Your task to perform on an android device: What is the speed of a plane? Image 0: 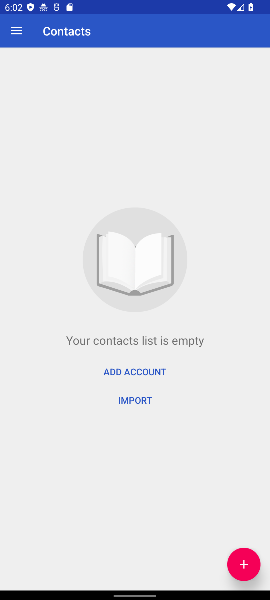
Step 0: press home button
Your task to perform on an android device: What is the speed of a plane? Image 1: 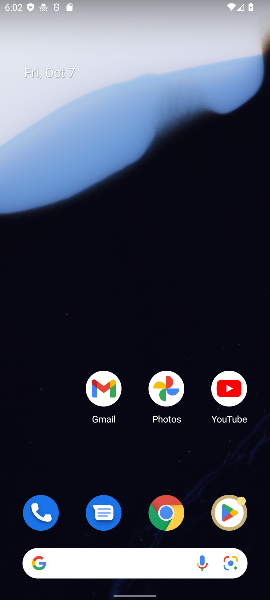
Step 1: click (95, 559)
Your task to perform on an android device: What is the speed of a plane? Image 2: 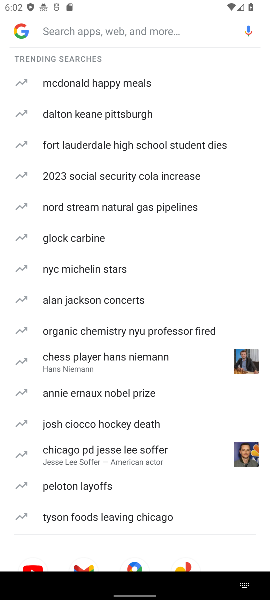
Step 2: type "What is the speed of a plane?"
Your task to perform on an android device: What is the speed of a plane? Image 3: 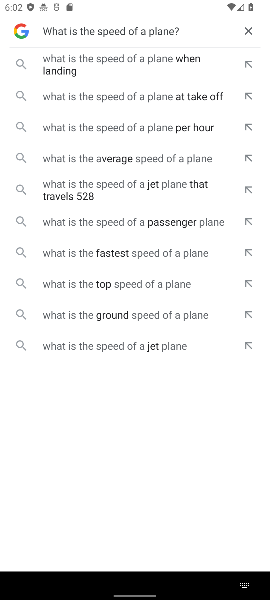
Step 3: click (88, 127)
Your task to perform on an android device: What is the speed of a plane? Image 4: 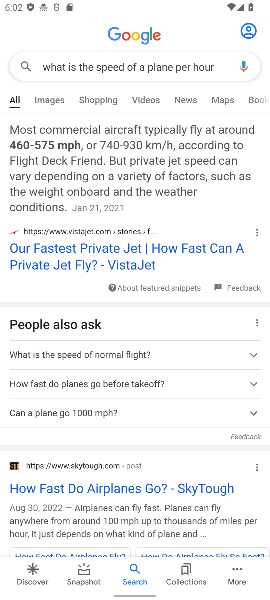
Step 4: task complete